Your task to perform on an android device: check storage Image 0: 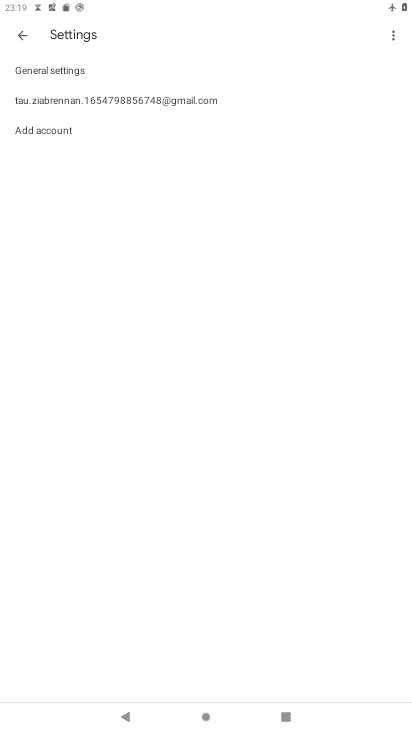
Step 0: press home button
Your task to perform on an android device: check storage Image 1: 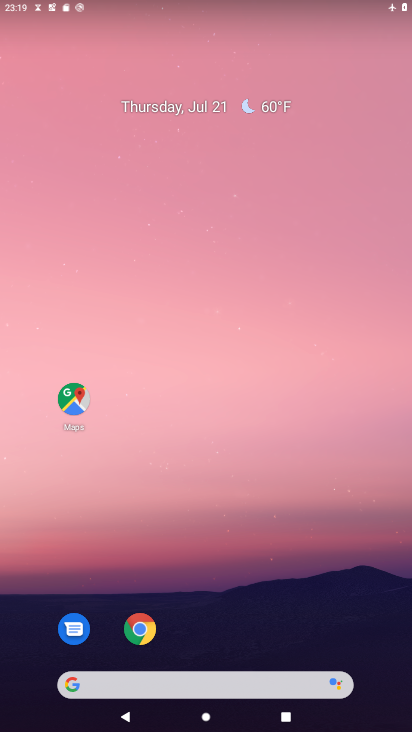
Step 1: drag from (219, 627) to (234, 223)
Your task to perform on an android device: check storage Image 2: 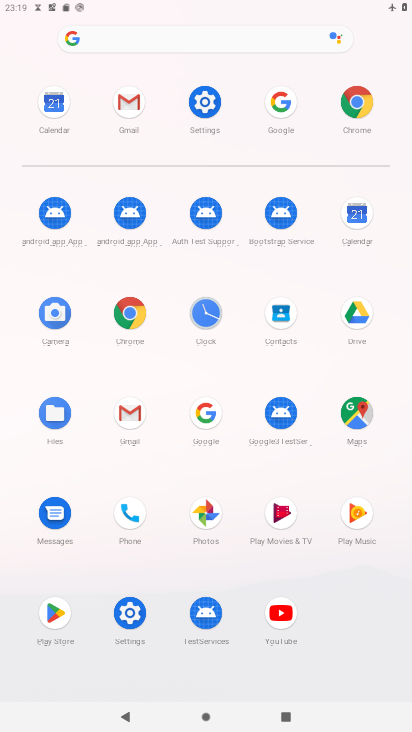
Step 2: click (202, 96)
Your task to perform on an android device: check storage Image 3: 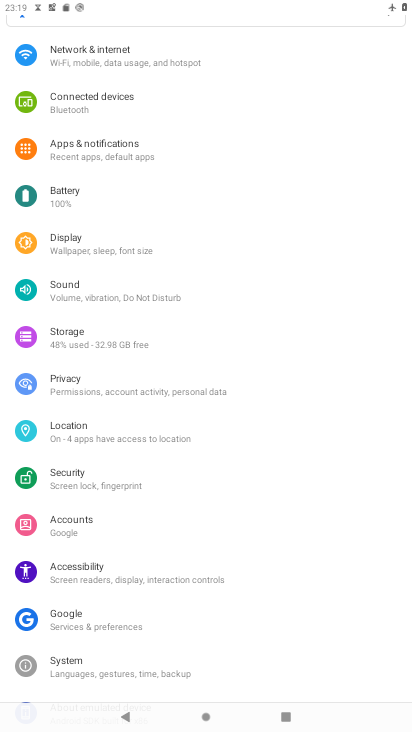
Step 3: click (95, 346)
Your task to perform on an android device: check storage Image 4: 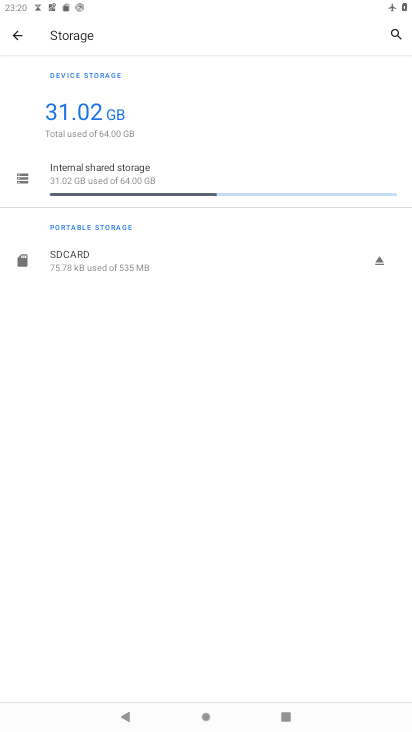
Step 4: task complete